Your task to perform on an android device: uninstall "Spotify: Music and Podcasts" Image 0: 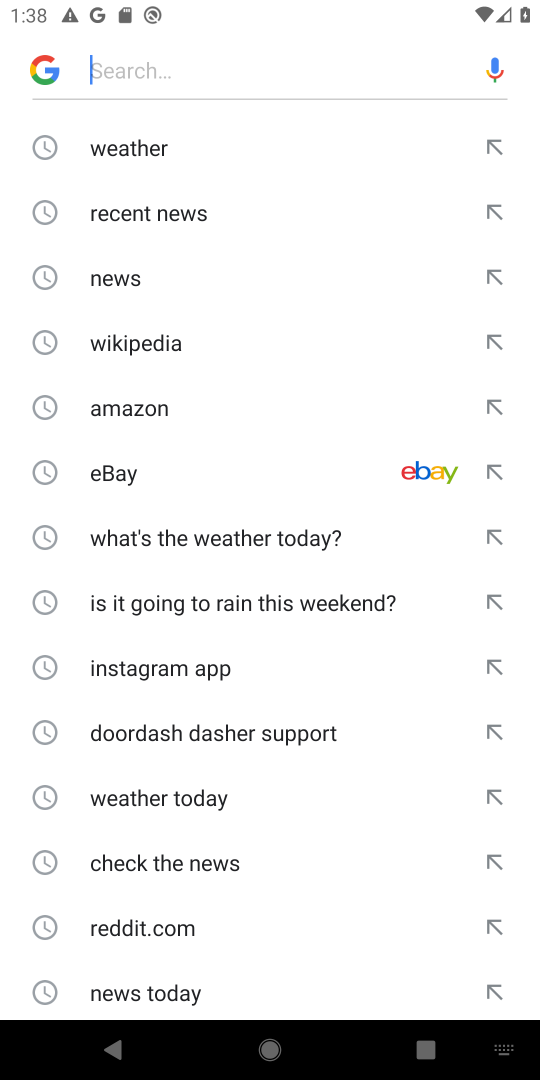
Step 0: press home button
Your task to perform on an android device: uninstall "Spotify: Music and Podcasts" Image 1: 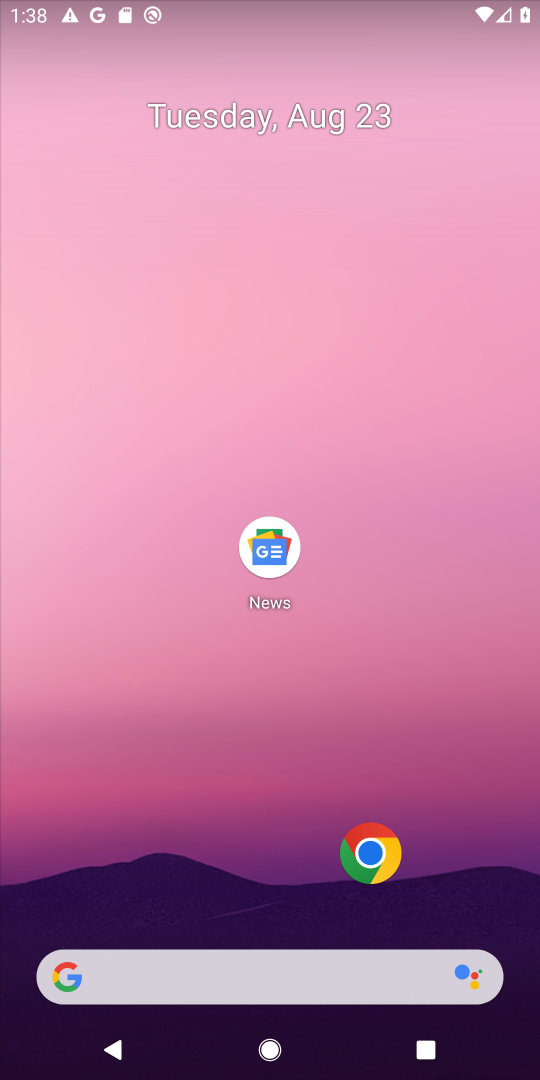
Step 1: drag from (508, 916) to (418, 147)
Your task to perform on an android device: uninstall "Spotify: Music and Podcasts" Image 2: 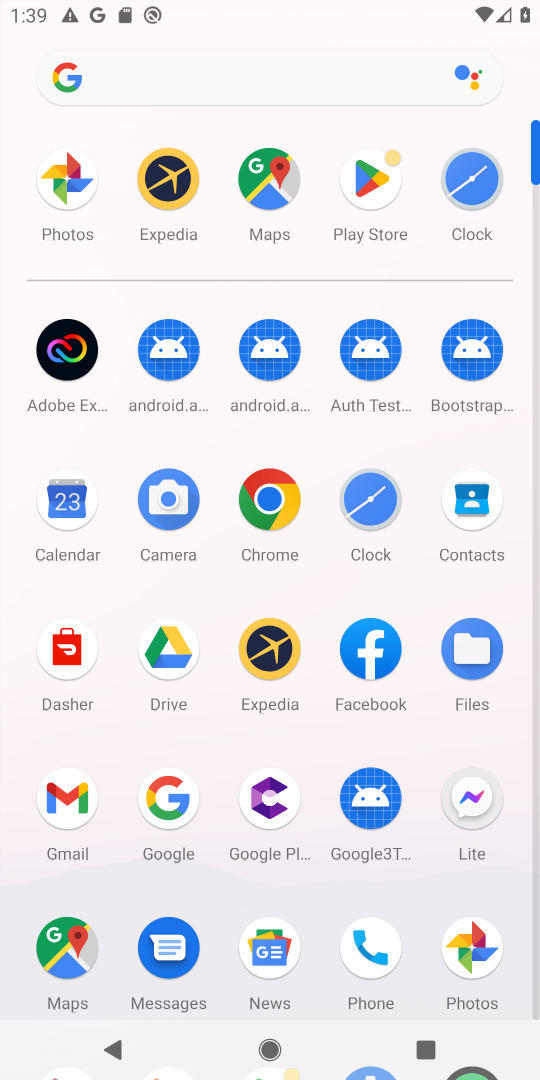
Step 2: drag from (221, 977) to (218, 632)
Your task to perform on an android device: uninstall "Spotify: Music and Podcasts" Image 3: 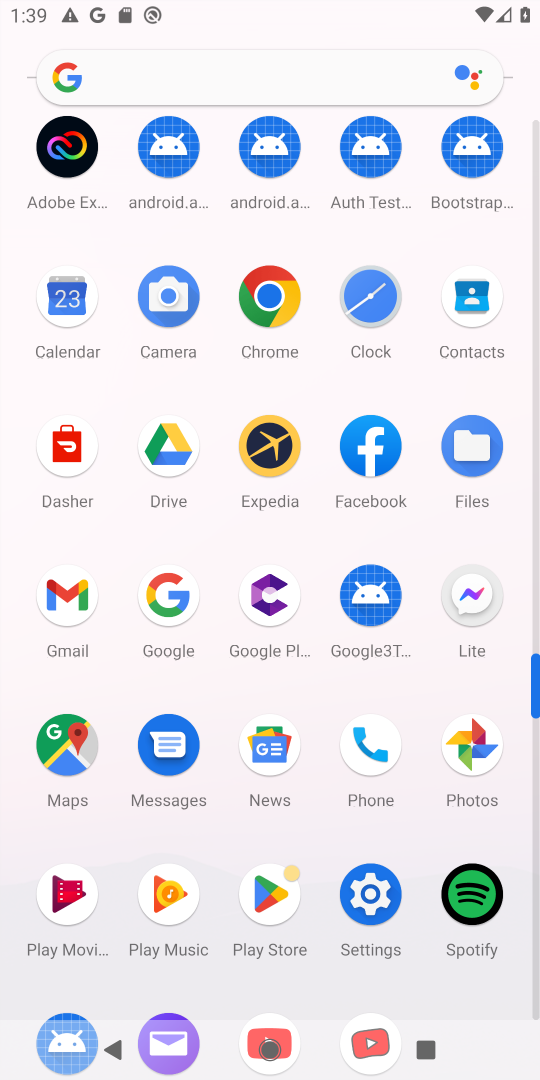
Step 3: drag from (472, 898) to (432, 326)
Your task to perform on an android device: uninstall "Spotify: Music and Podcasts" Image 4: 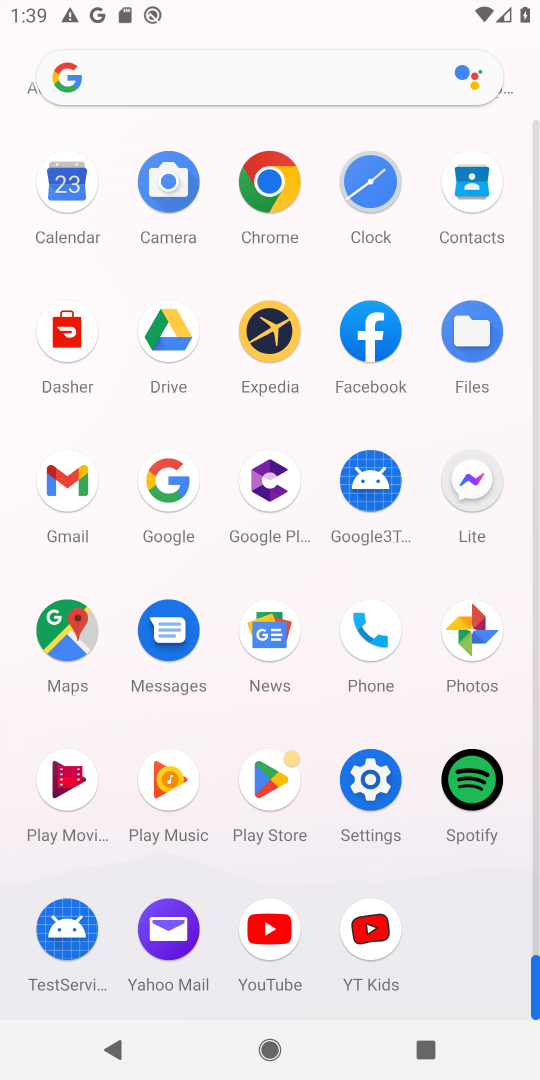
Step 4: click (477, 737)
Your task to perform on an android device: uninstall "Spotify: Music and Podcasts" Image 5: 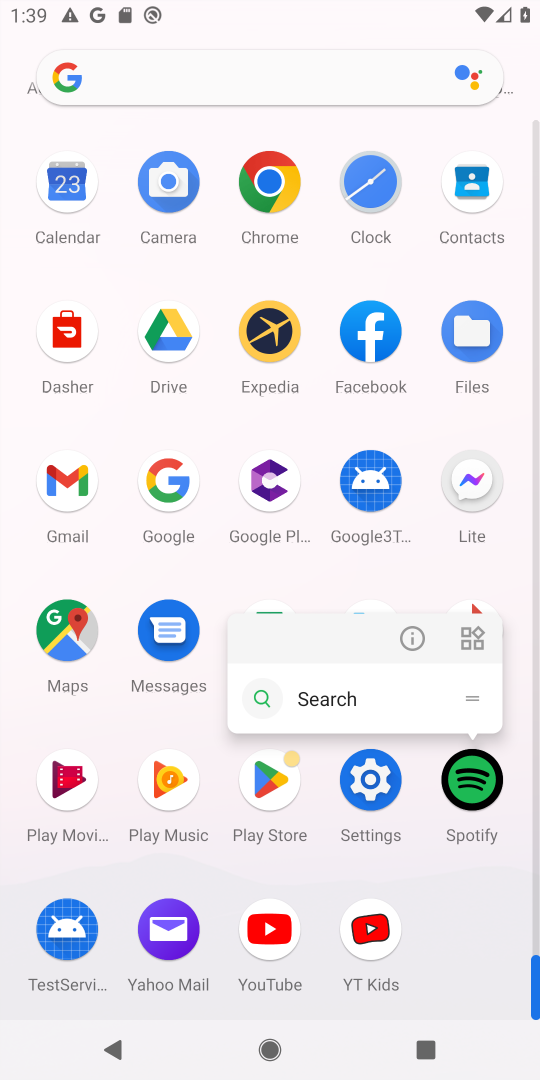
Step 5: drag from (473, 781) to (347, 162)
Your task to perform on an android device: uninstall "Spotify: Music and Podcasts" Image 6: 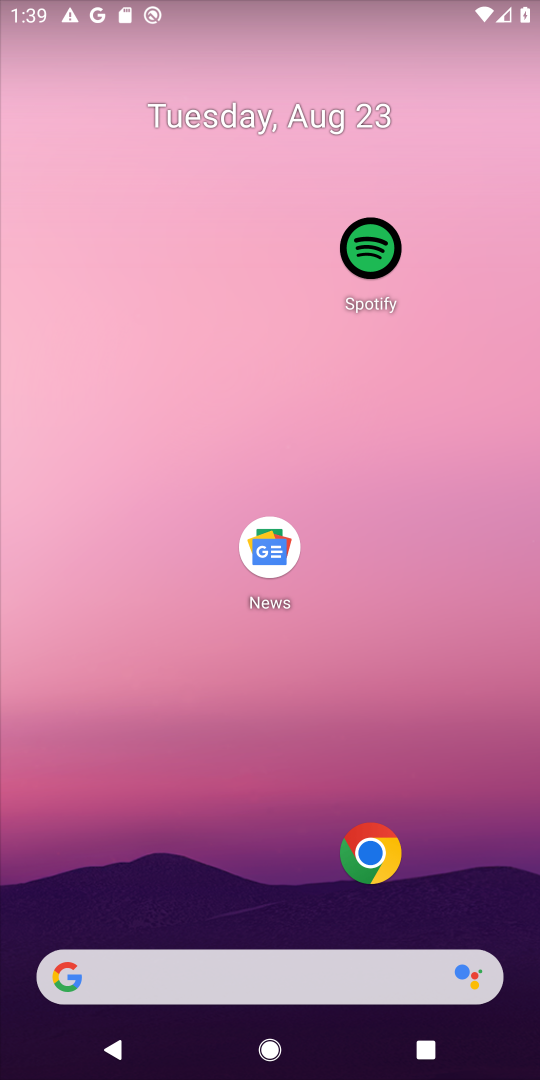
Step 6: drag from (370, 262) to (412, 84)
Your task to perform on an android device: uninstall "Spotify: Music and Podcasts" Image 7: 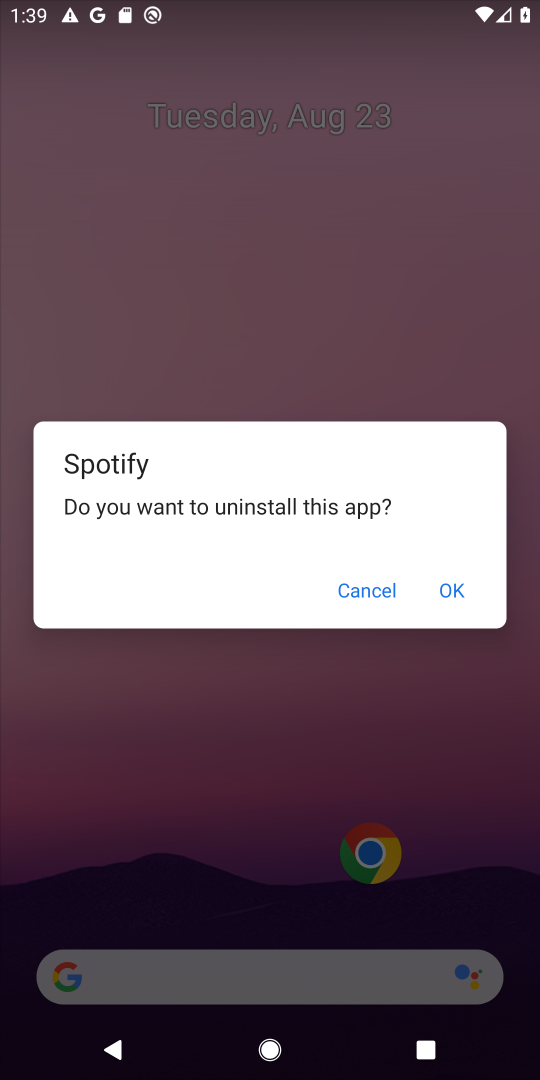
Step 7: click (450, 591)
Your task to perform on an android device: uninstall "Spotify: Music and Podcasts" Image 8: 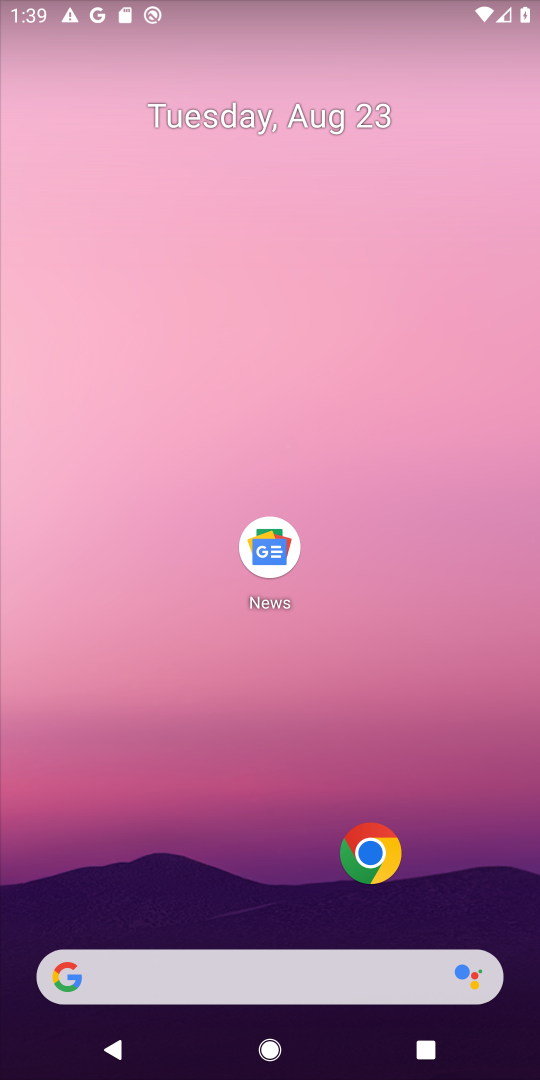
Step 8: task complete